Your task to perform on an android device: Search for dell xps on amazon, select the first entry, and add it to the cart. Image 0: 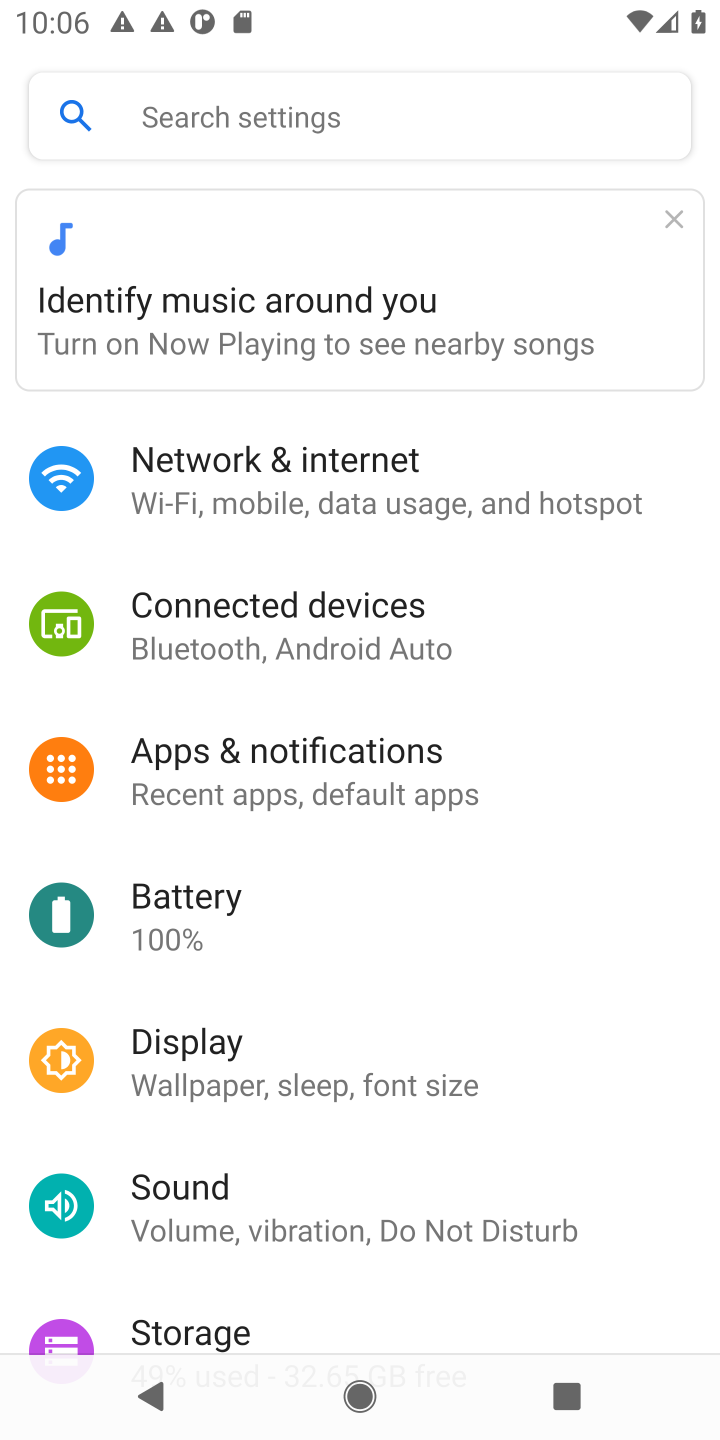
Step 0: press home button
Your task to perform on an android device: Search for dell xps on amazon, select the first entry, and add it to the cart. Image 1: 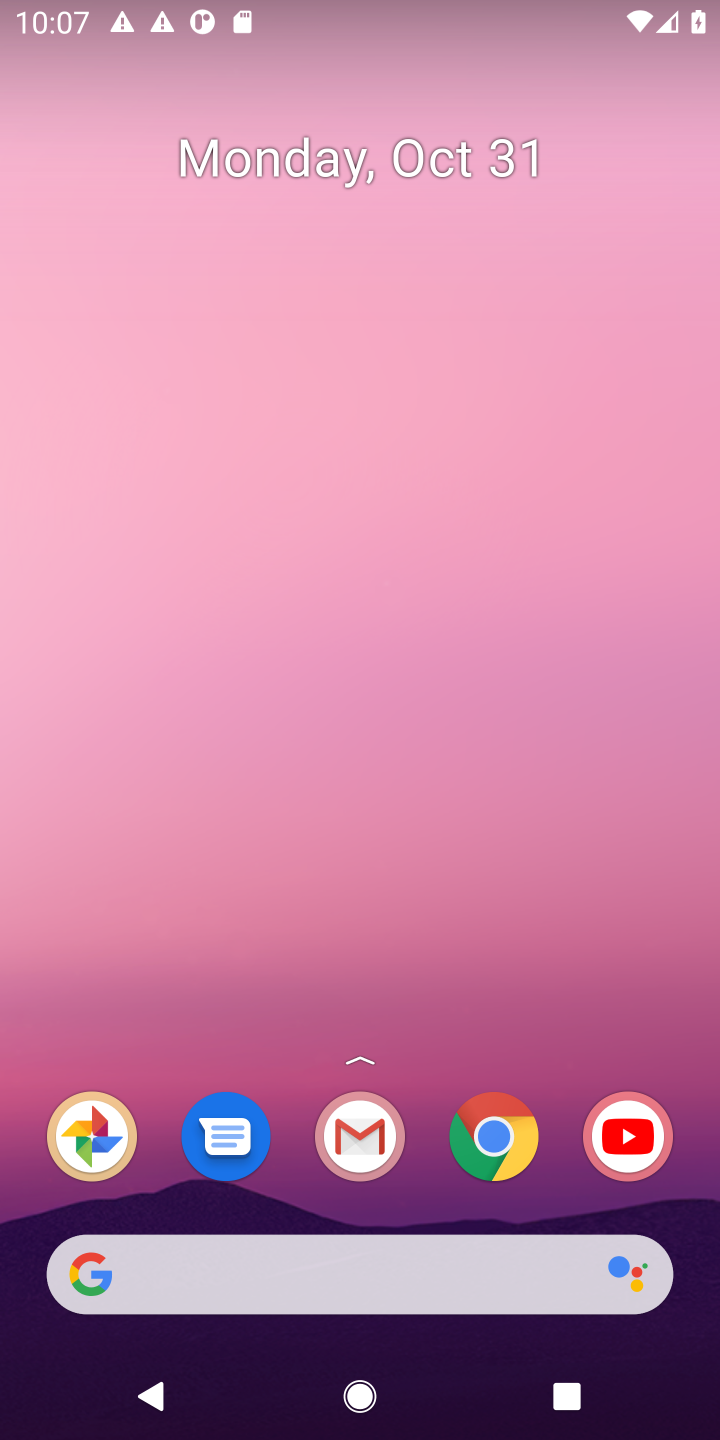
Step 1: click (141, 1259)
Your task to perform on an android device: Search for dell xps on amazon, select the first entry, and add it to the cart. Image 2: 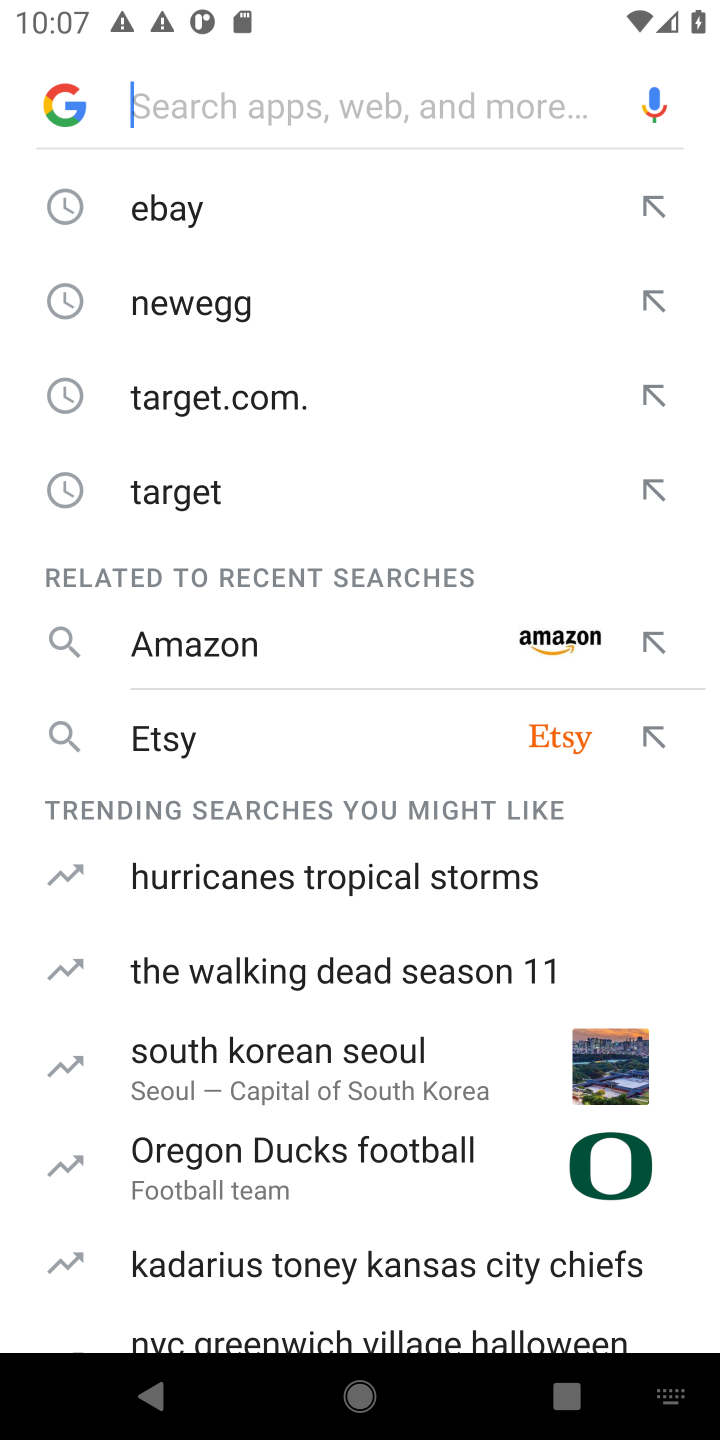
Step 2: type "amazon"
Your task to perform on an android device: Search for dell xps on amazon, select the first entry, and add it to the cart. Image 3: 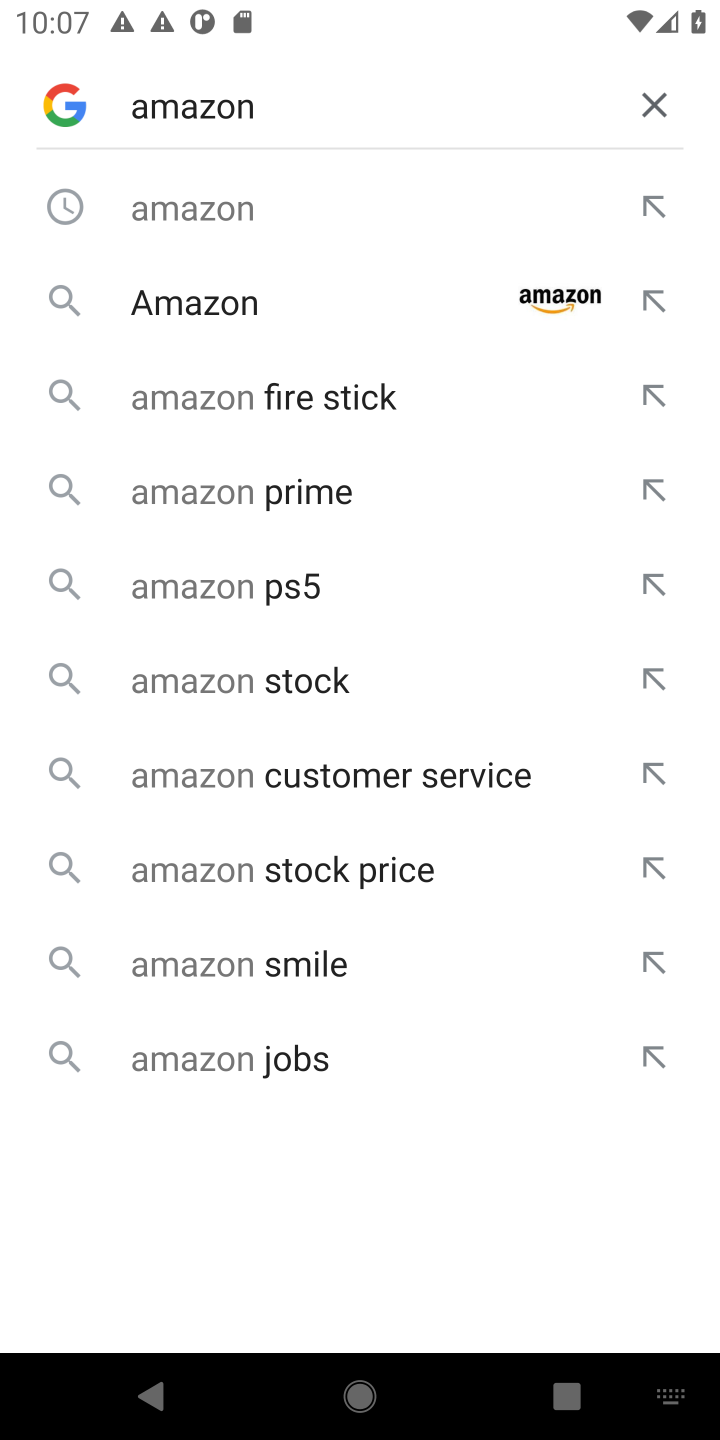
Step 3: press enter
Your task to perform on an android device: Search for dell xps on amazon, select the first entry, and add it to the cart. Image 4: 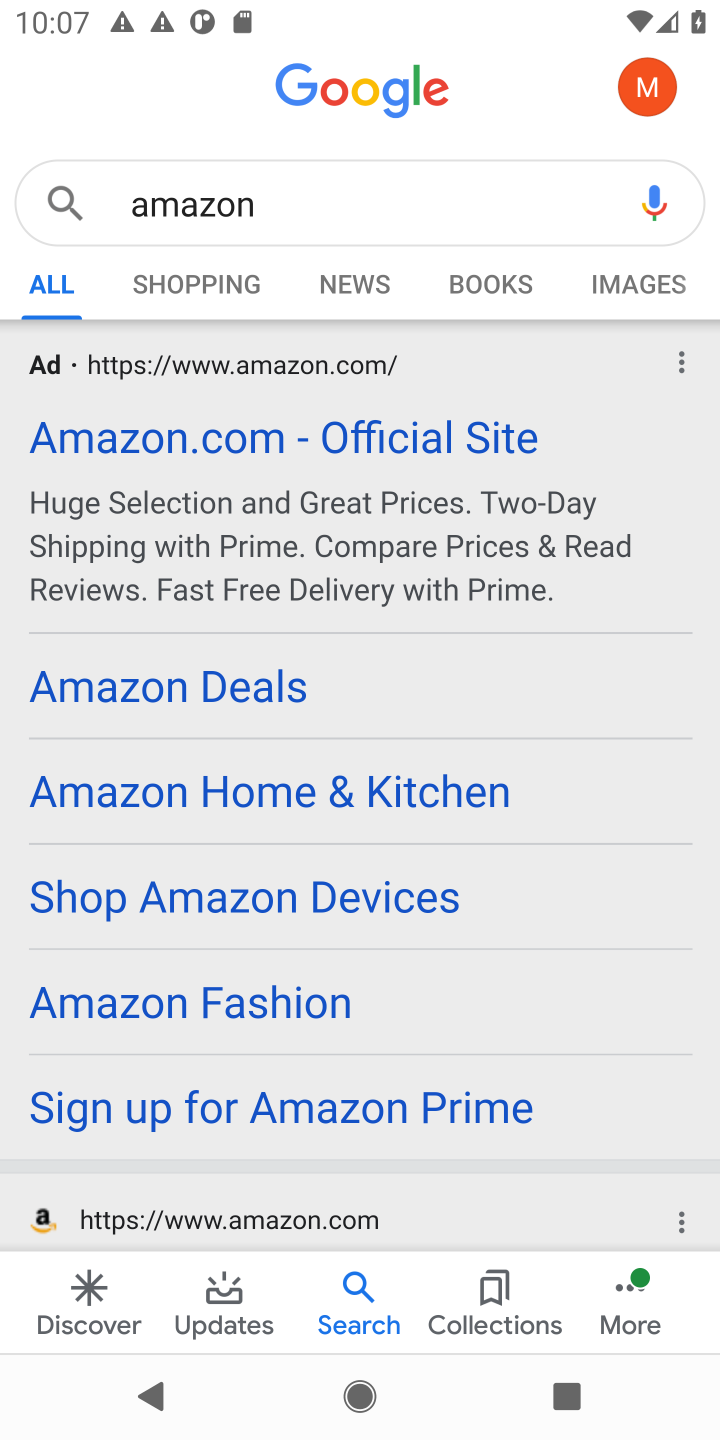
Step 4: drag from (475, 1037) to (560, 495)
Your task to perform on an android device: Search for dell xps on amazon, select the first entry, and add it to the cart. Image 5: 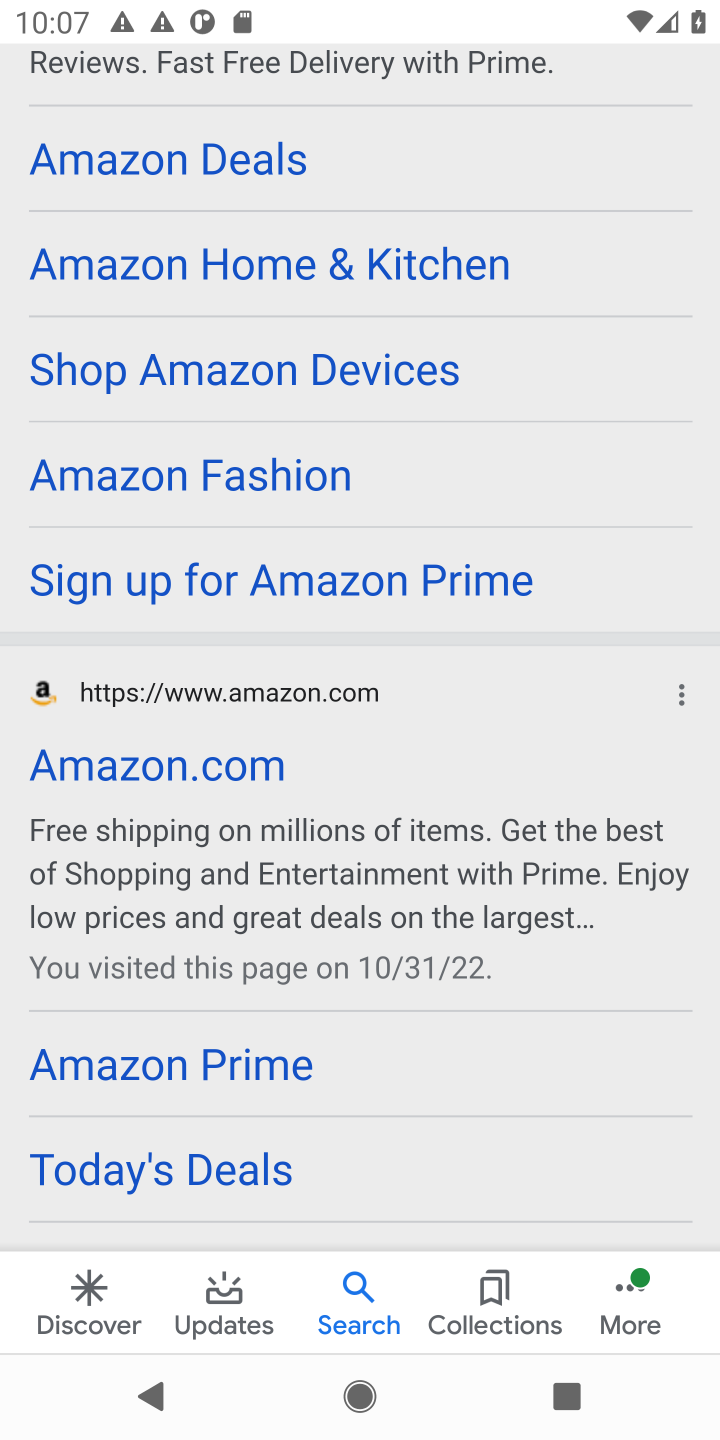
Step 5: click (190, 766)
Your task to perform on an android device: Search for dell xps on amazon, select the first entry, and add it to the cart. Image 6: 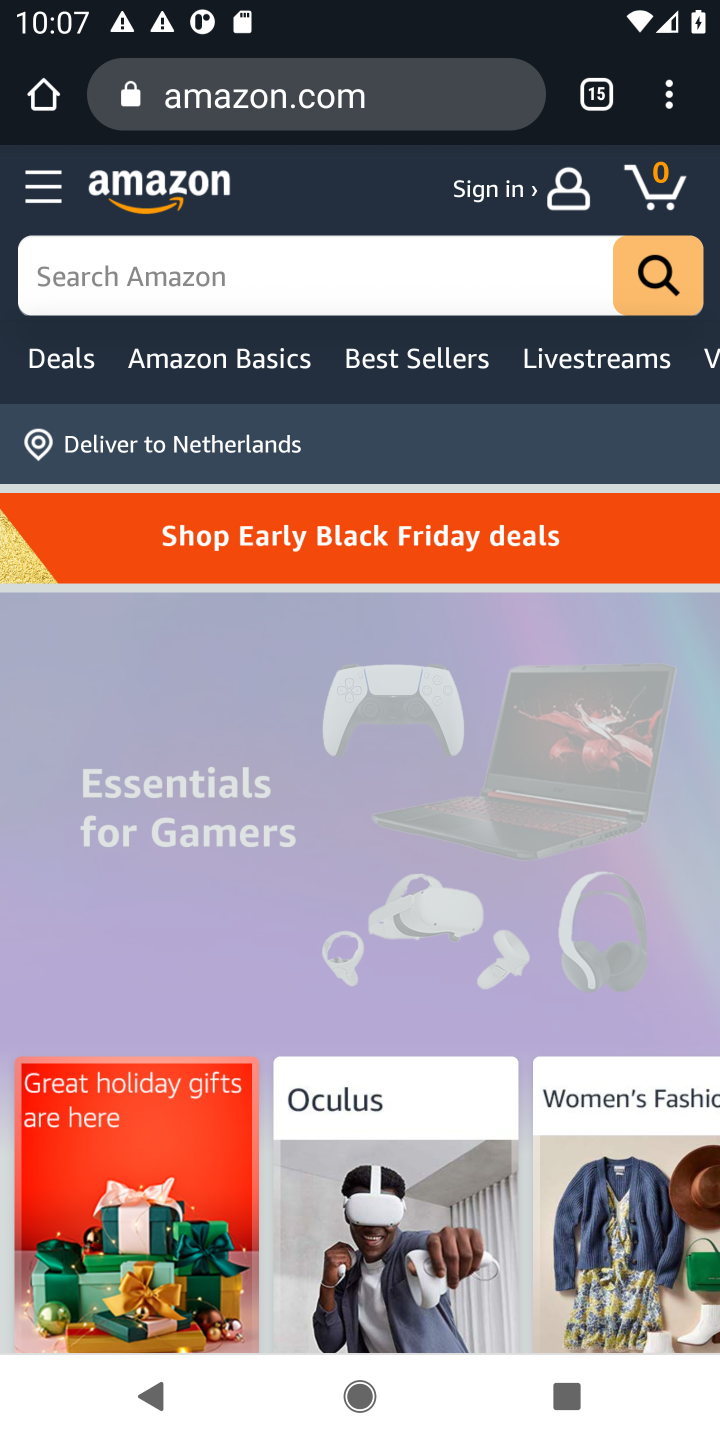
Step 6: click (167, 270)
Your task to perform on an android device: Search for dell xps on amazon, select the first entry, and add it to the cart. Image 7: 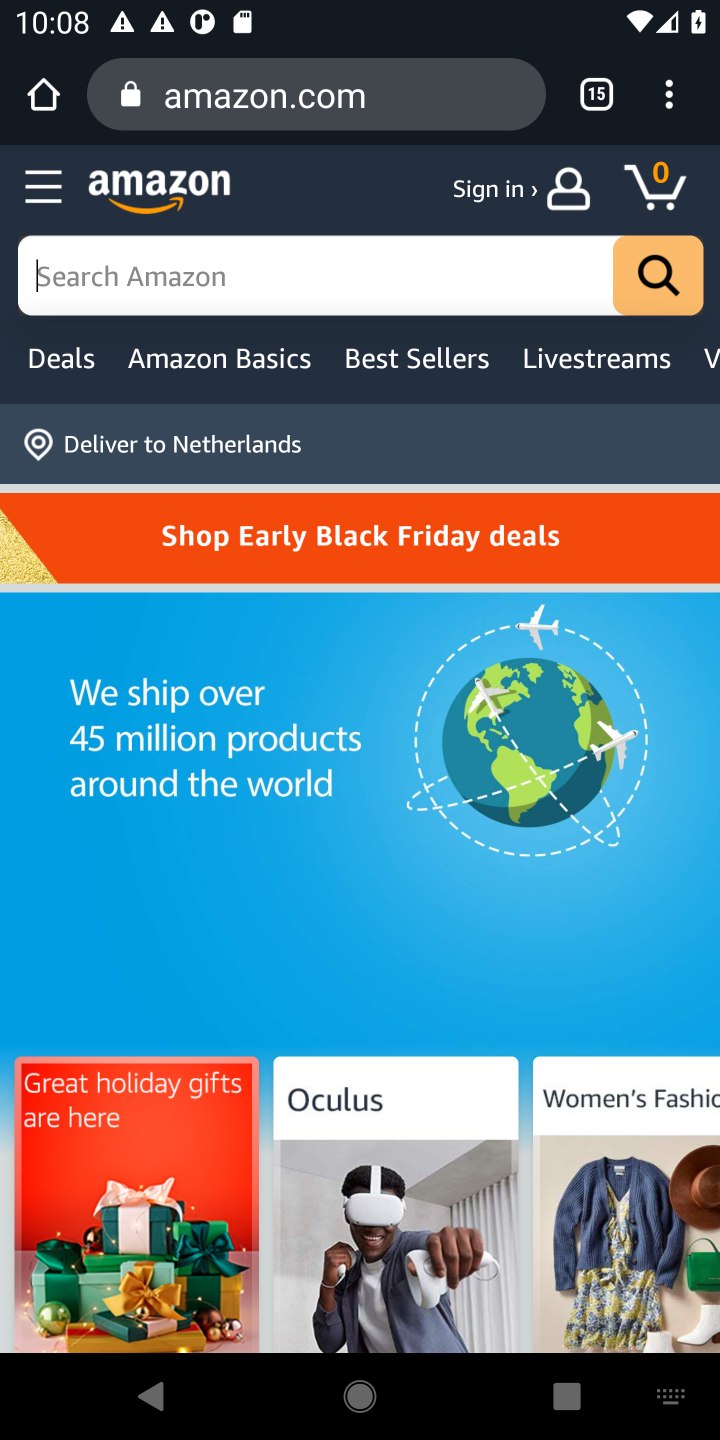
Step 7: type "dell xps"
Your task to perform on an android device: Search for dell xps on amazon, select the first entry, and add it to the cart. Image 8: 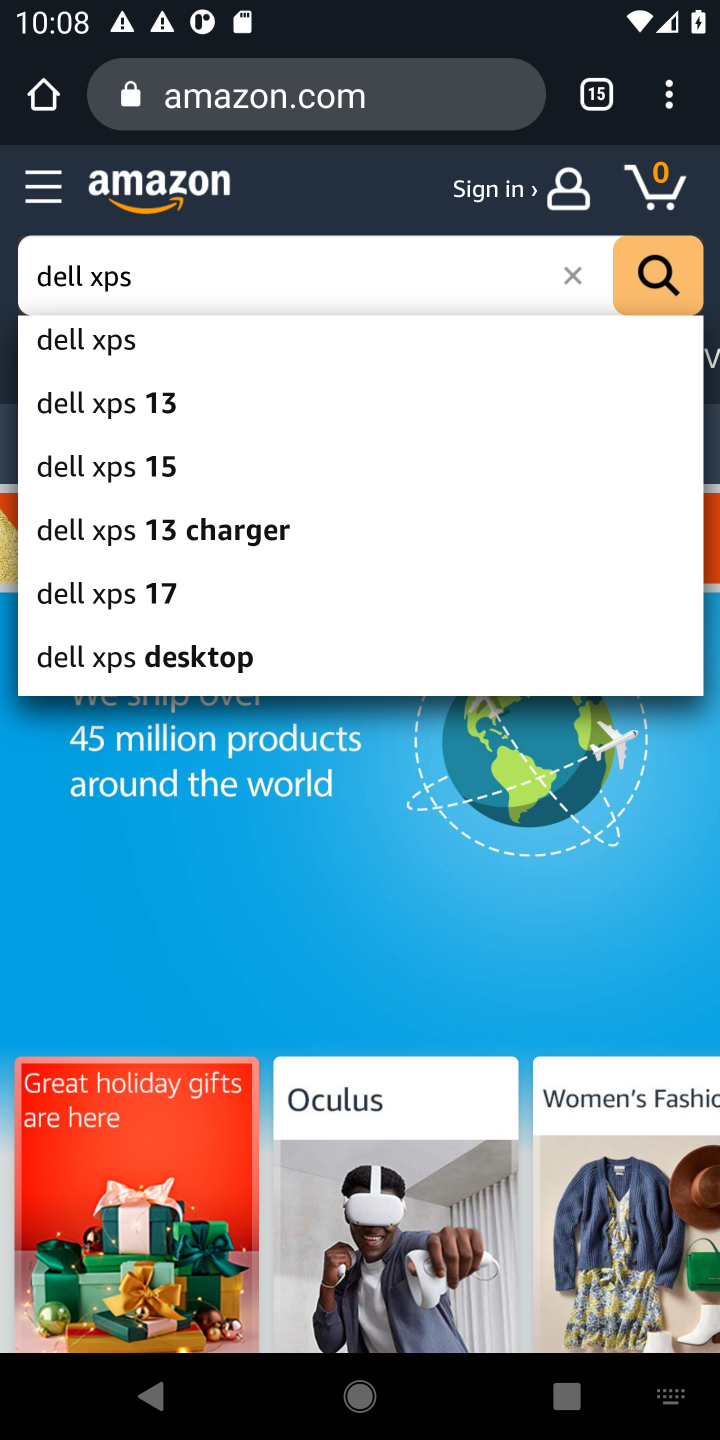
Step 8: click (664, 267)
Your task to perform on an android device: Search for dell xps on amazon, select the first entry, and add it to the cart. Image 9: 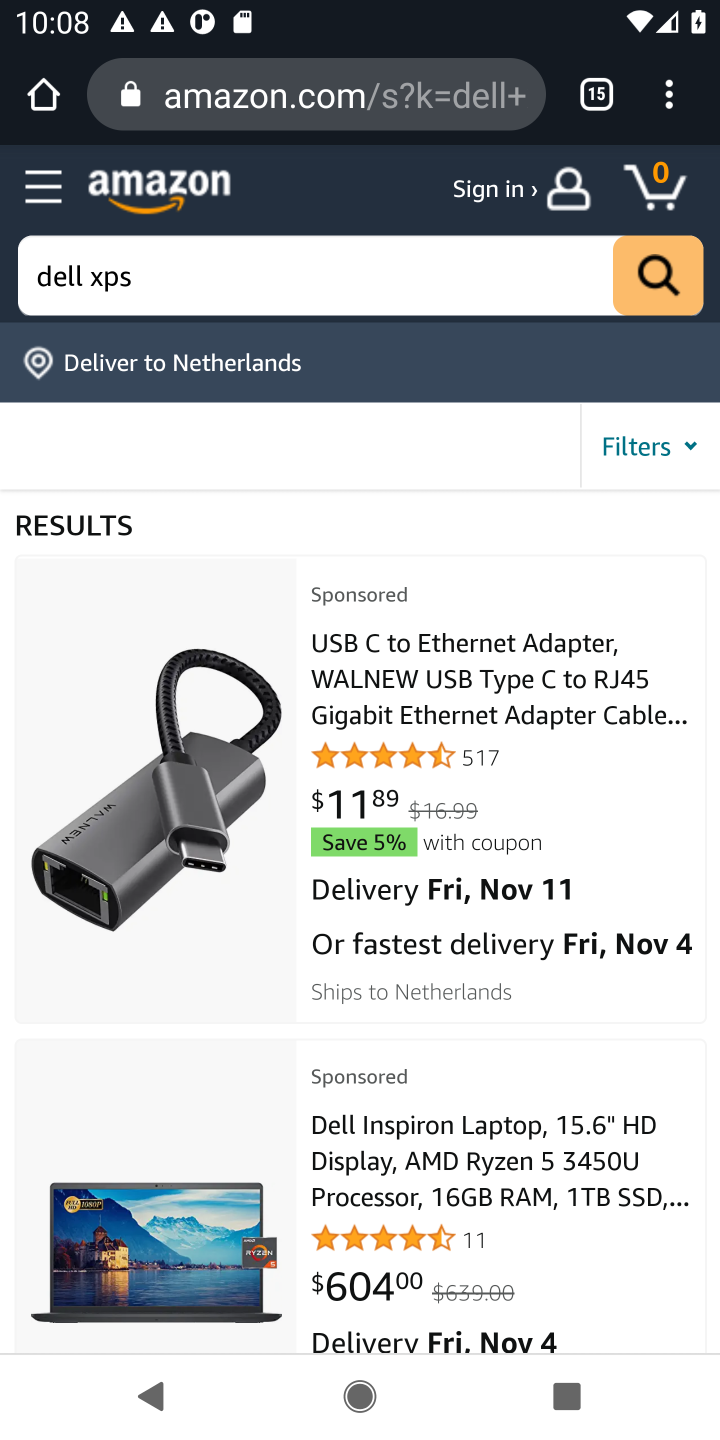
Step 9: drag from (464, 1234) to (484, 822)
Your task to perform on an android device: Search for dell xps on amazon, select the first entry, and add it to the cart. Image 10: 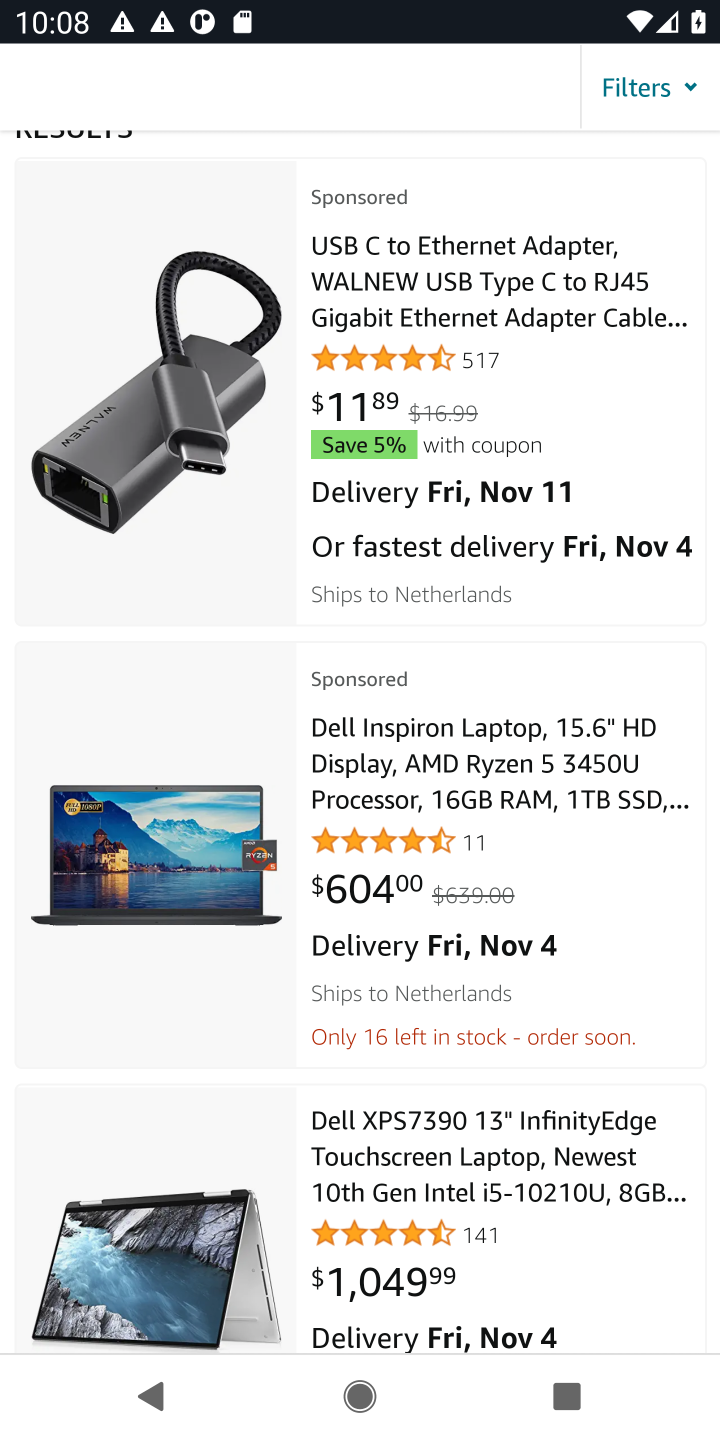
Step 10: drag from (464, 1135) to (506, 705)
Your task to perform on an android device: Search for dell xps on amazon, select the first entry, and add it to the cart. Image 11: 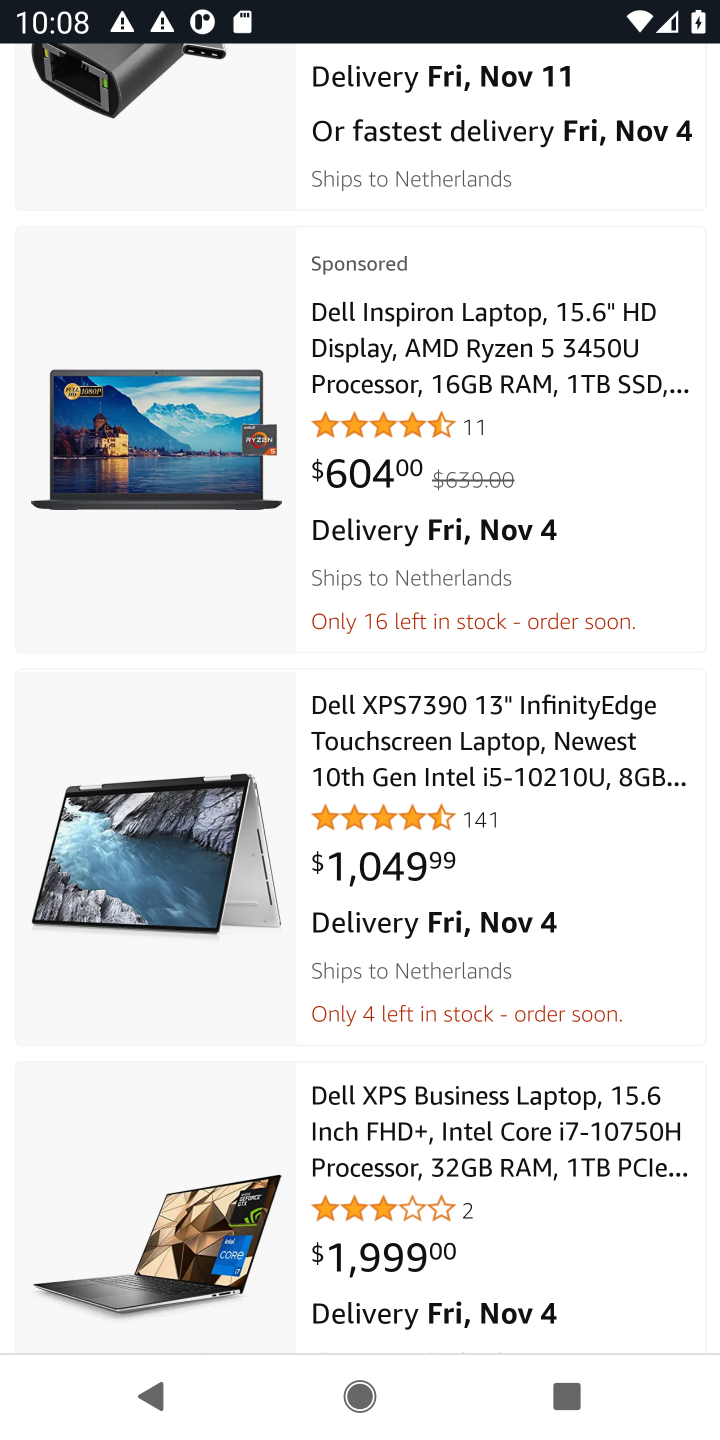
Step 11: click (416, 750)
Your task to perform on an android device: Search for dell xps on amazon, select the first entry, and add it to the cart. Image 12: 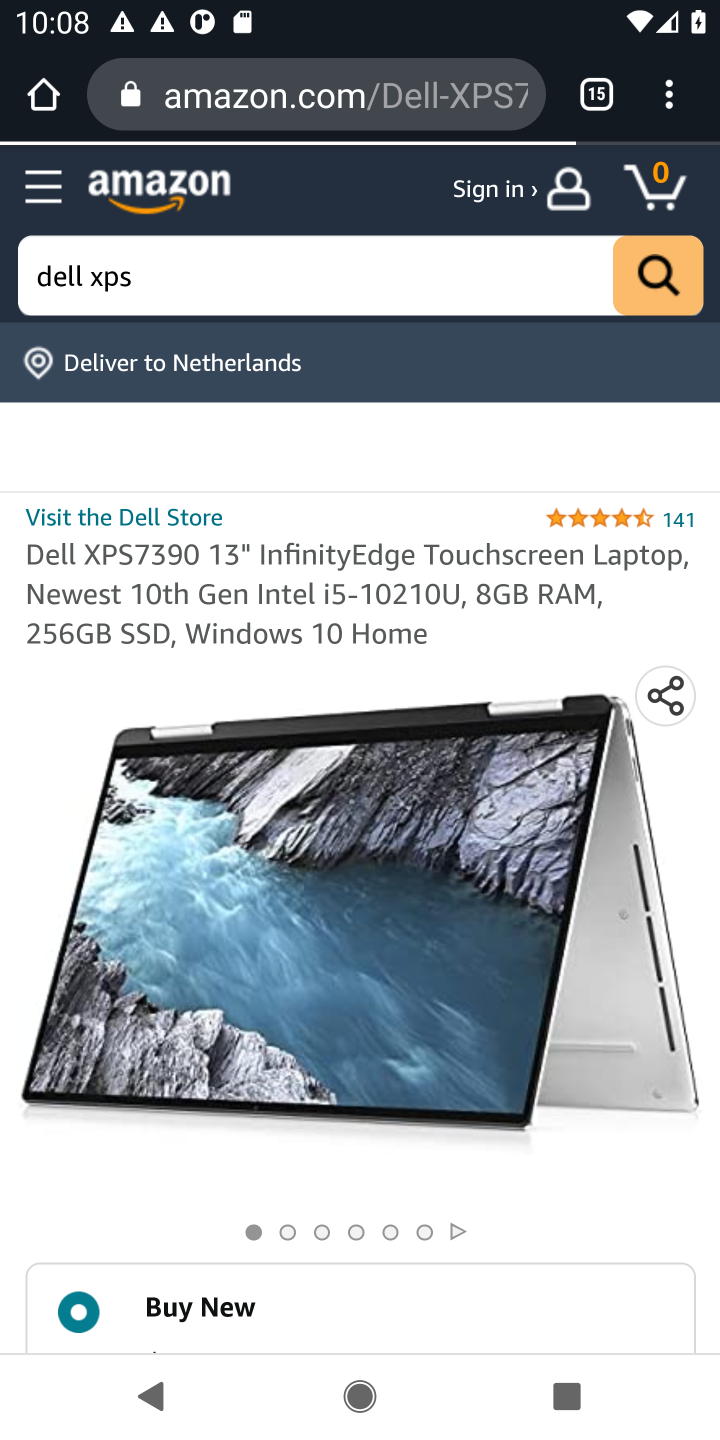
Step 12: drag from (445, 1167) to (465, 675)
Your task to perform on an android device: Search for dell xps on amazon, select the first entry, and add it to the cart. Image 13: 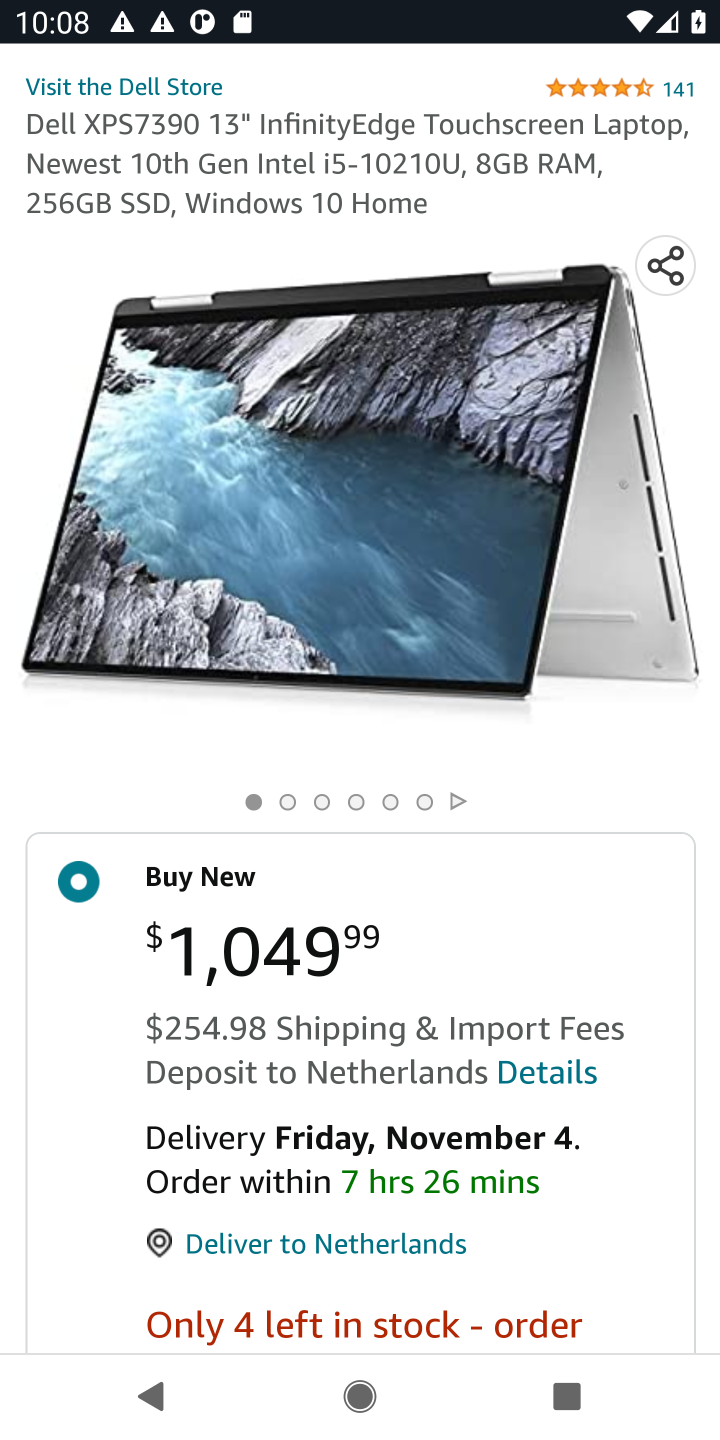
Step 13: drag from (440, 1004) to (460, 649)
Your task to perform on an android device: Search for dell xps on amazon, select the first entry, and add it to the cart. Image 14: 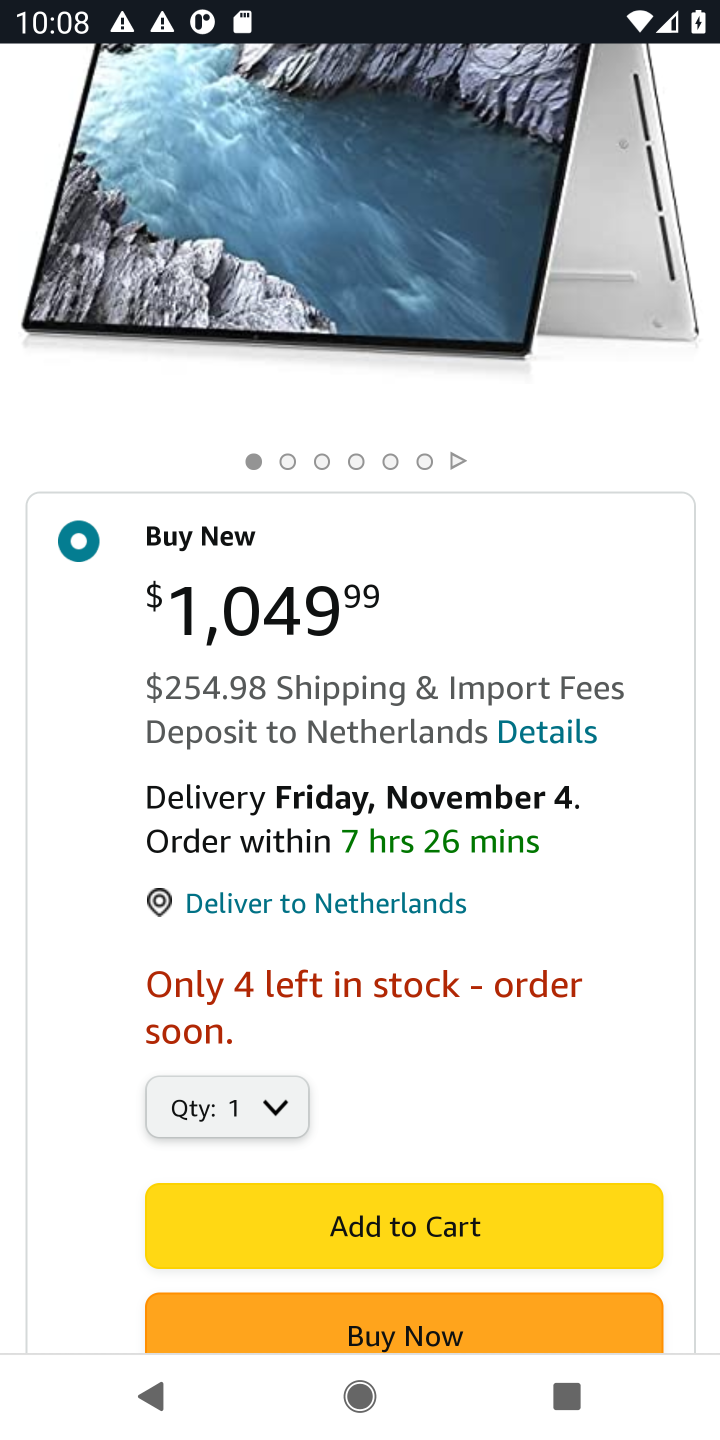
Step 14: drag from (467, 1035) to (494, 630)
Your task to perform on an android device: Search for dell xps on amazon, select the first entry, and add it to the cart. Image 15: 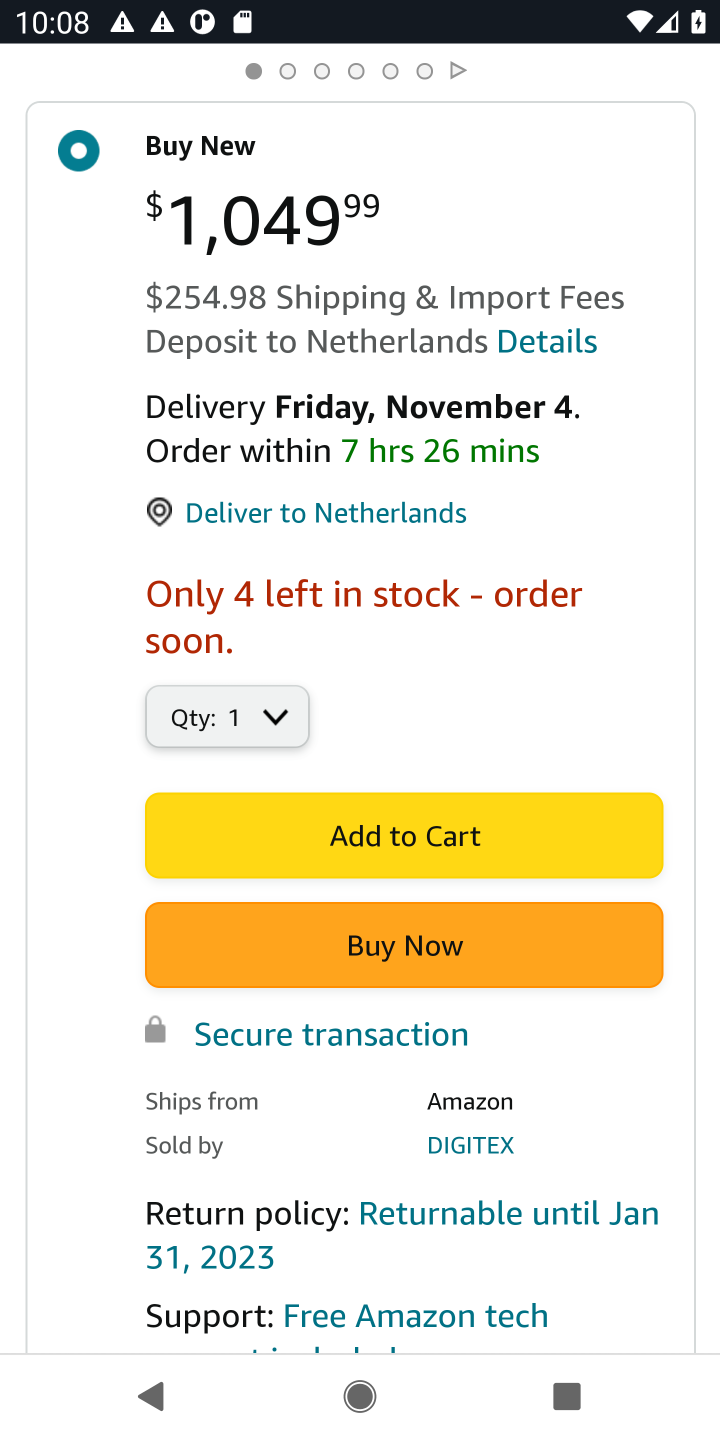
Step 15: click (510, 832)
Your task to perform on an android device: Search for dell xps on amazon, select the first entry, and add it to the cart. Image 16: 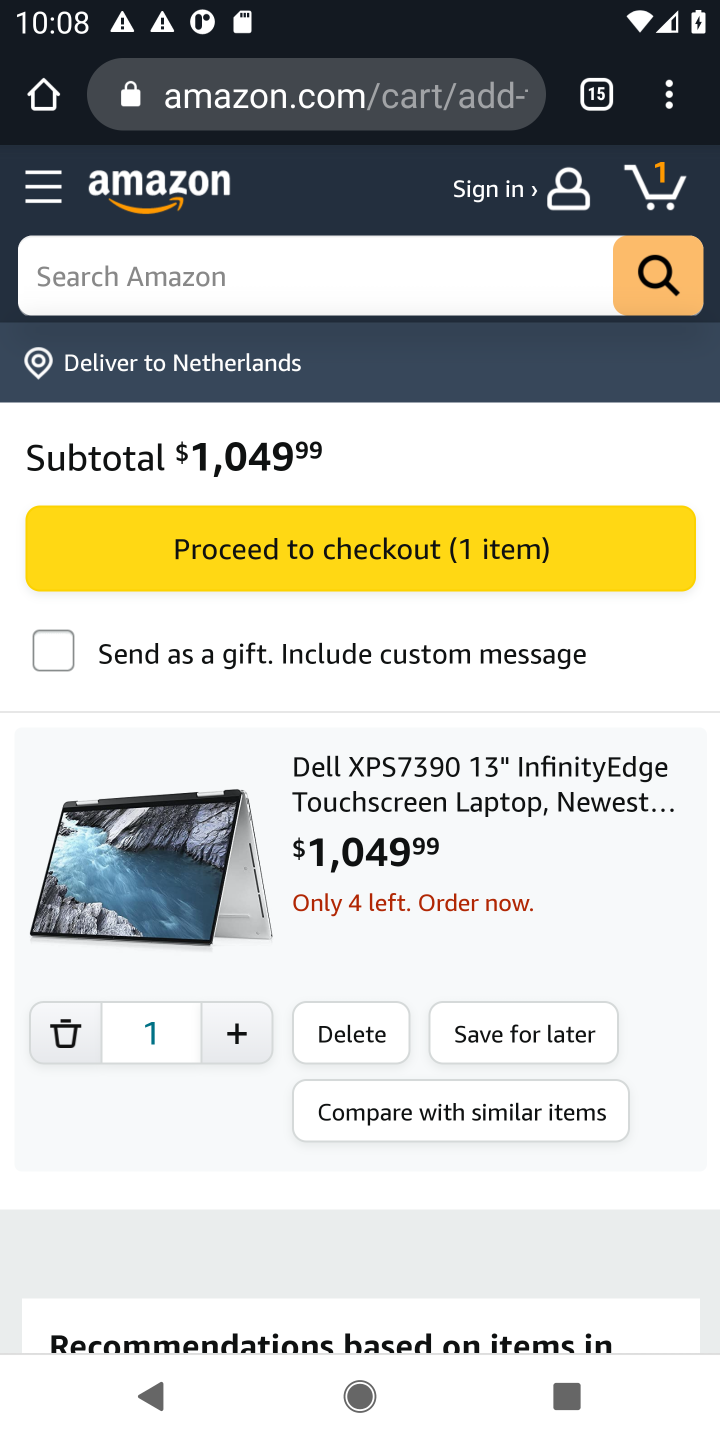
Step 16: task complete